Your task to perform on an android device: Open Amazon Image 0: 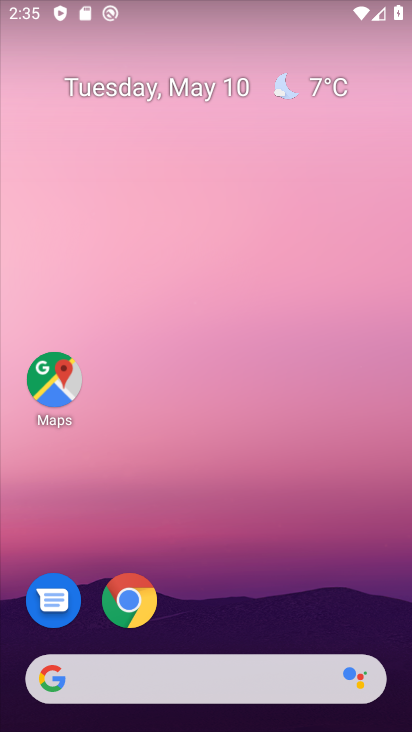
Step 0: click (118, 599)
Your task to perform on an android device: Open Amazon Image 1: 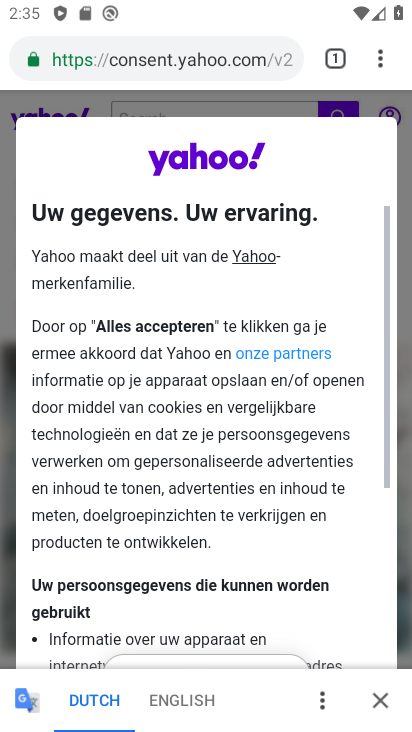
Step 1: click (207, 63)
Your task to perform on an android device: Open Amazon Image 2: 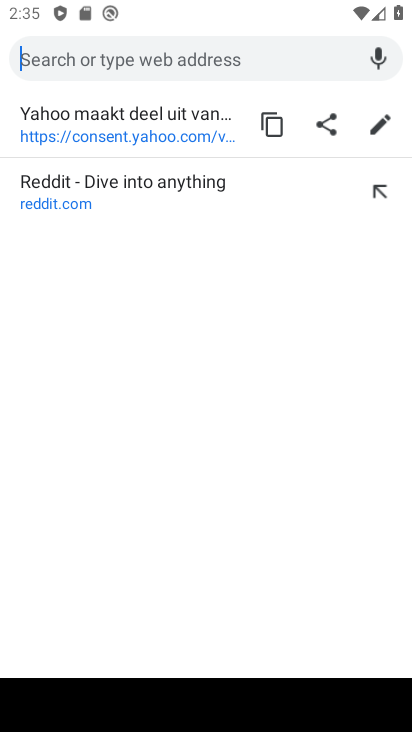
Step 2: type "amazon"
Your task to perform on an android device: Open Amazon Image 3: 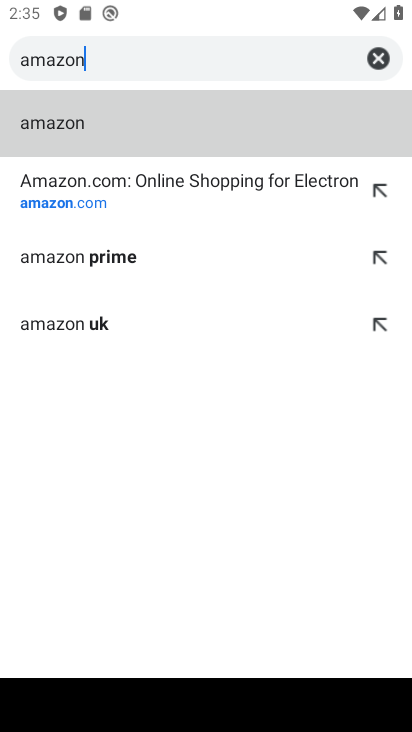
Step 3: click (172, 194)
Your task to perform on an android device: Open Amazon Image 4: 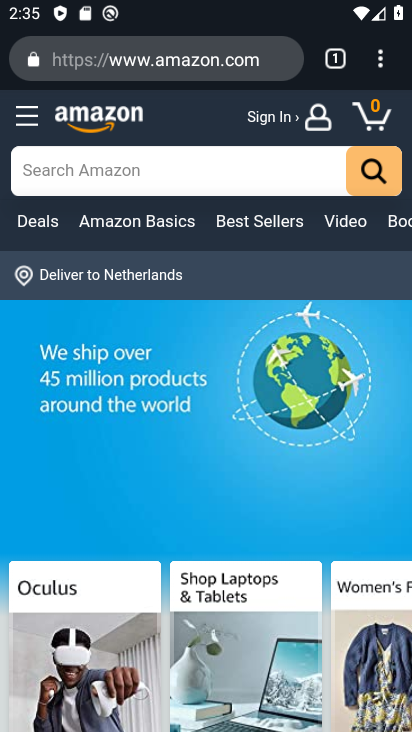
Step 4: task complete